Your task to perform on an android device: Open wifi settings Image 0: 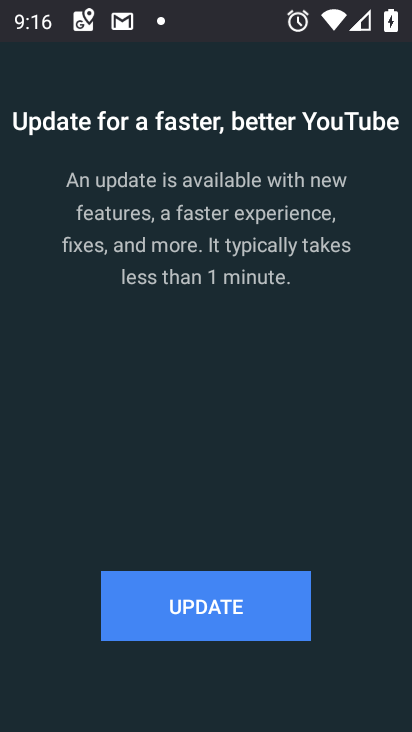
Step 0: press home button
Your task to perform on an android device: Open wifi settings Image 1: 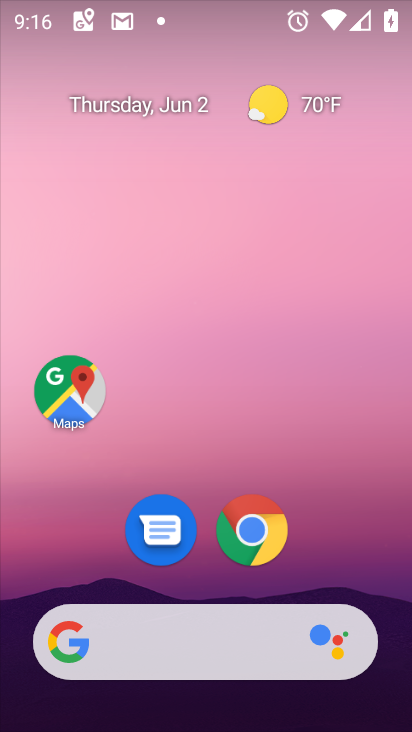
Step 1: drag from (121, 591) to (121, 421)
Your task to perform on an android device: Open wifi settings Image 2: 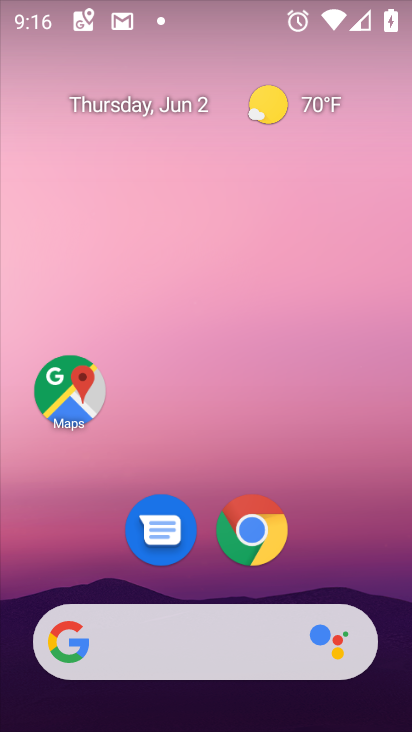
Step 2: drag from (222, 551) to (222, 298)
Your task to perform on an android device: Open wifi settings Image 3: 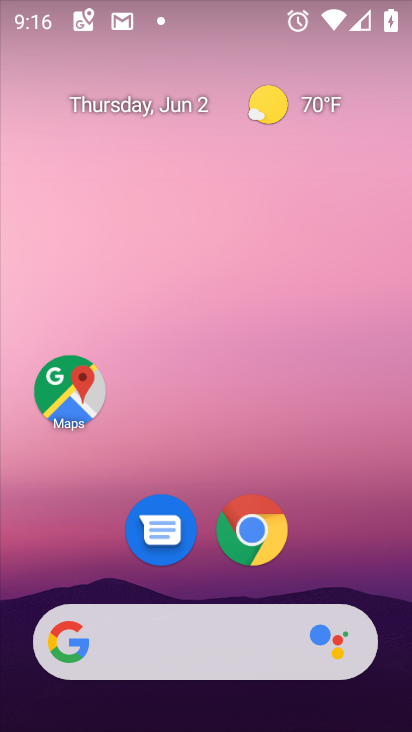
Step 3: drag from (130, 608) to (109, 293)
Your task to perform on an android device: Open wifi settings Image 4: 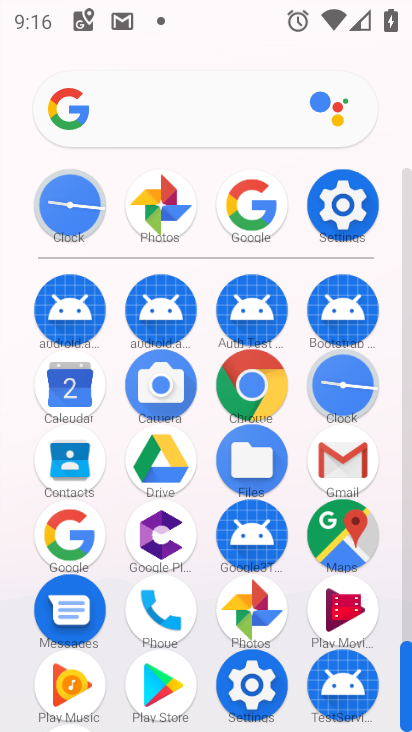
Step 4: click (340, 212)
Your task to perform on an android device: Open wifi settings Image 5: 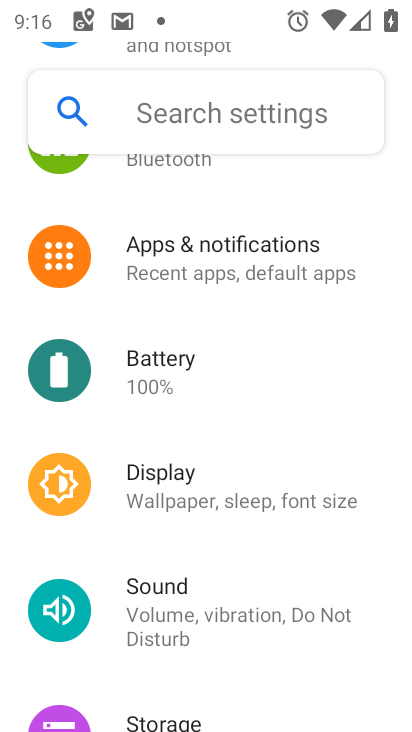
Step 5: drag from (169, 213) to (194, 597)
Your task to perform on an android device: Open wifi settings Image 6: 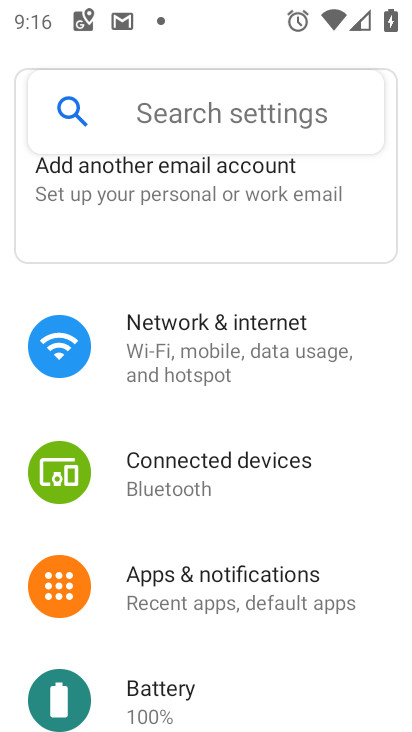
Step 6: click (178, 365)
Your task to perform on an android device: Open wifi settings Image 7: 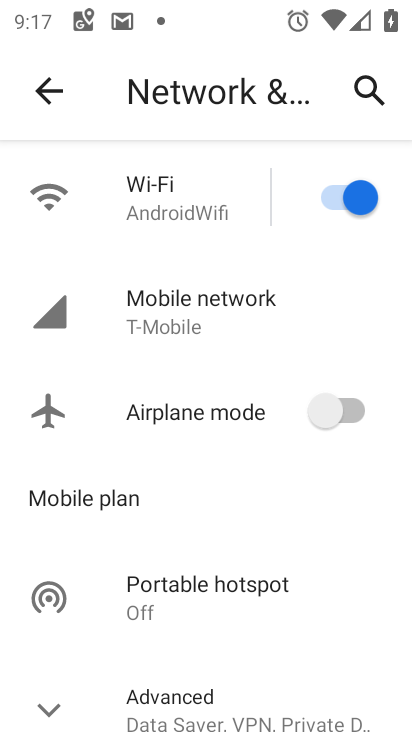
Step 7: click (133, 193)
Your task to perform on an android device: Open wifi settings Image 8: 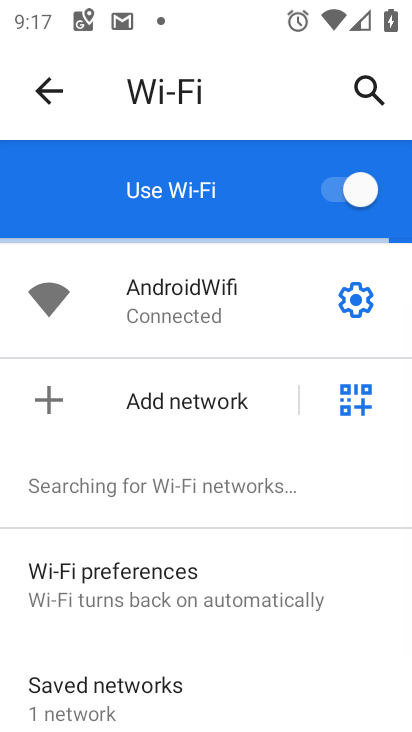
Step 8: click (354, 298)
Your task to perform on an android device: Open wifi settings Image 9: 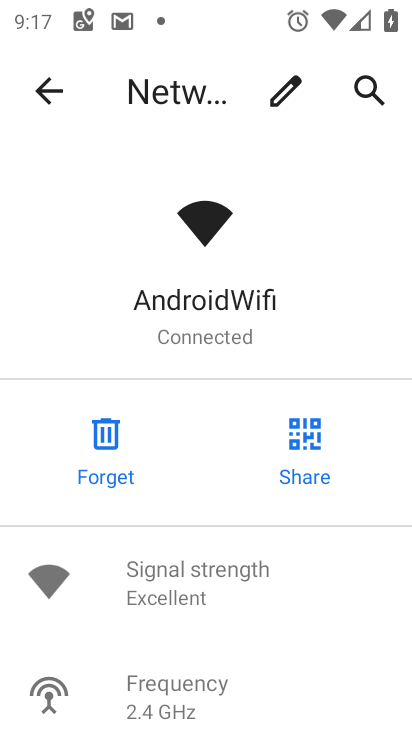
Step 9: task complete